Your task to perform on an android device: Do I have any events this weekend? Image 0: 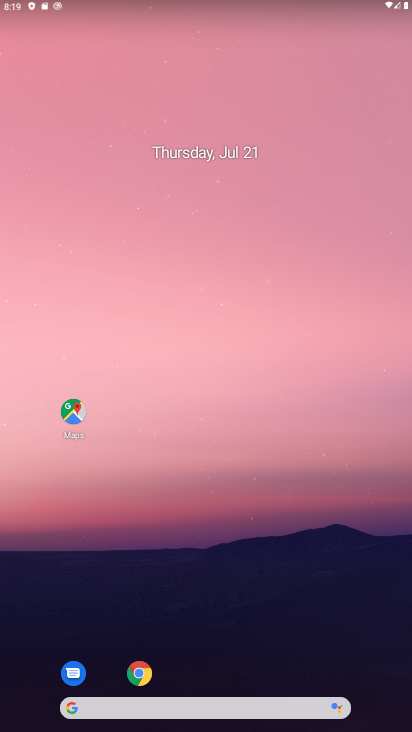
Step 0: drag from (190, 708) to (190, 144)
Your task to perform on an android device: Do I have any events this weekend? Image 1: 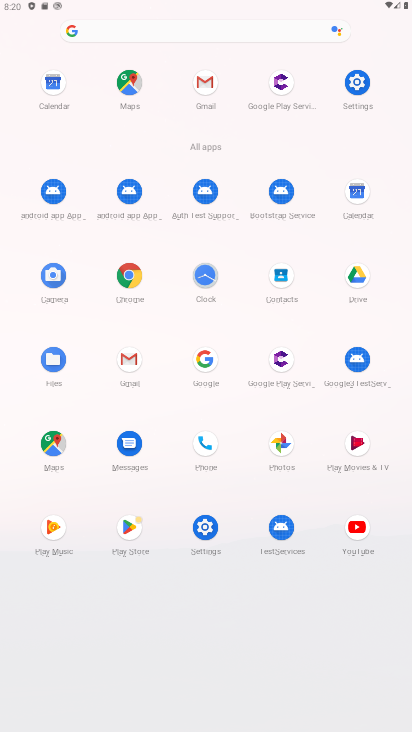
Step 1: click (361, 197)
Your task to perform on an android device: Do I have any events this weekend? Image 2: 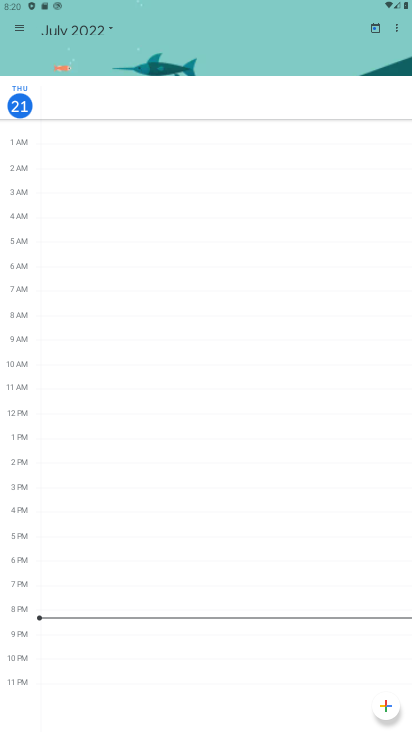
Step 2: click (112, 29)
Your task to perform on an android device: Do I have any events this weekend? Image 3: 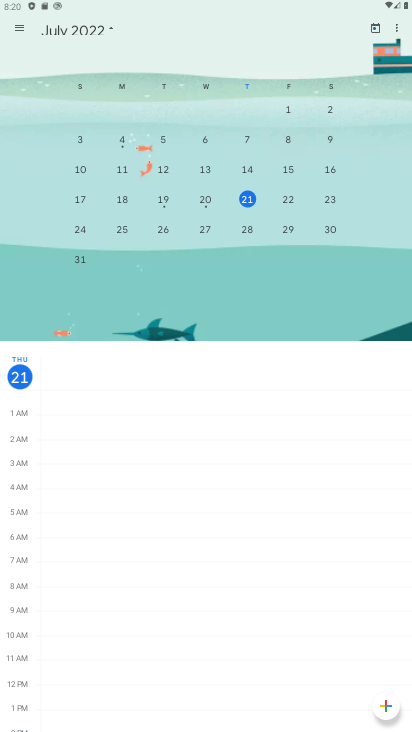
Step 3: click (16, 28)
Your task to perform on an android device: Do I have any events this weekend? Image 4: 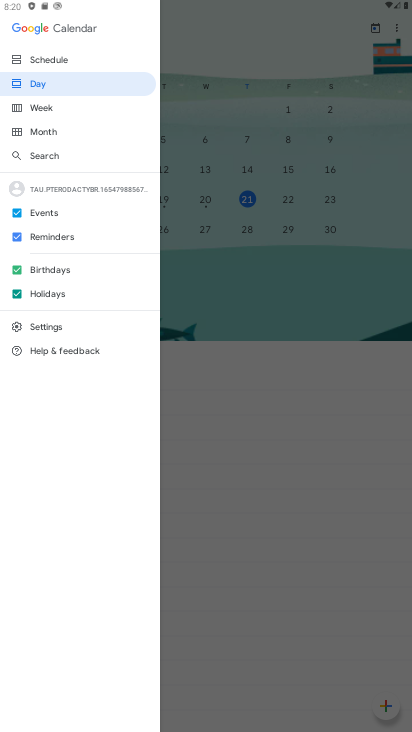
Step 4: click (15, 291)
Your task to perform on an android device: Do I have any events this weekend? Image 5: 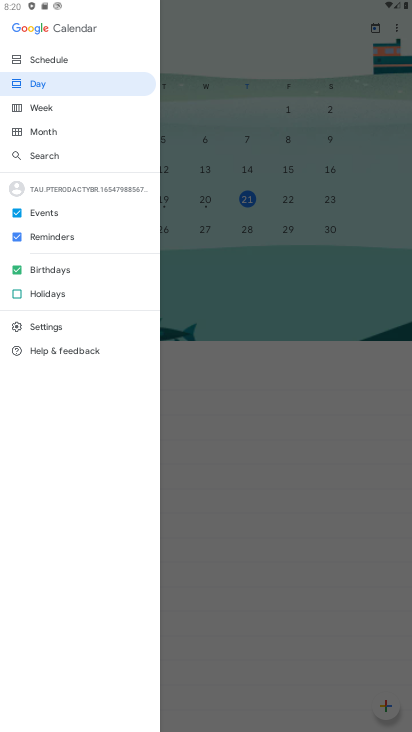
Step 5: click (17, 267)
Your task to perform on an android device: Do I have any events this weekend? Image 6: 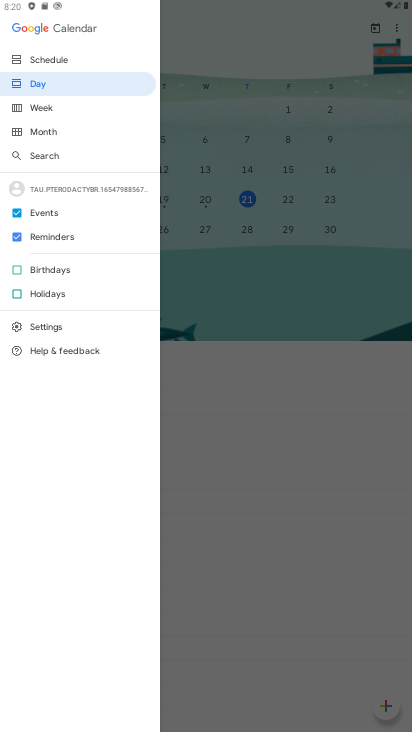
Step 6: click (18, 231)
Your task to perform on an android device: Do I have any events this weekend? Image 7: 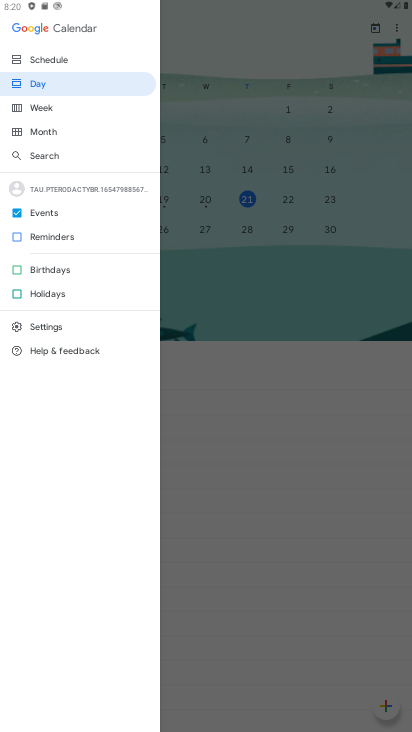
Step 7: click (297, 199)
Your task to perform on an android device: Do I have any events this weekend? Image 8: 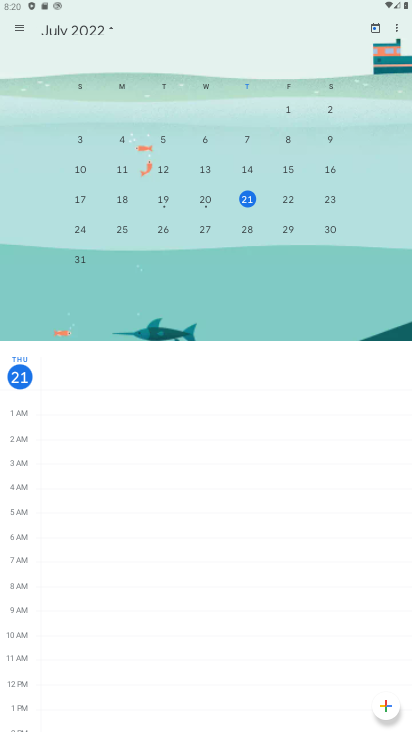
Step 8: click (329, 199)
Your task to perform on an android device: Do I have any events this weekend? Image 9: 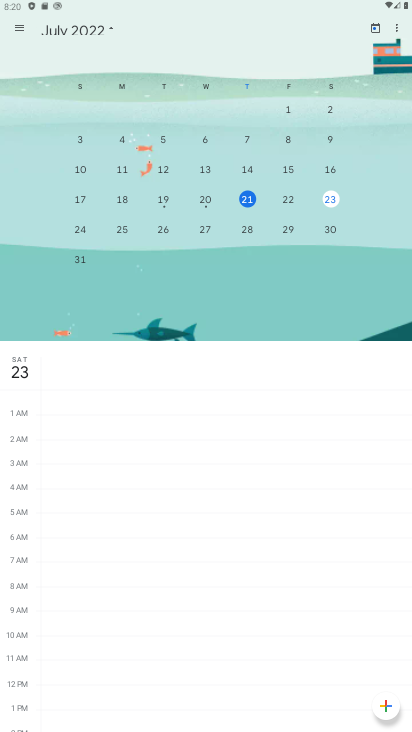
Step 9: click (329, 199)
Your task to perform on an android device: Do I have any events this weekend? Image 10: 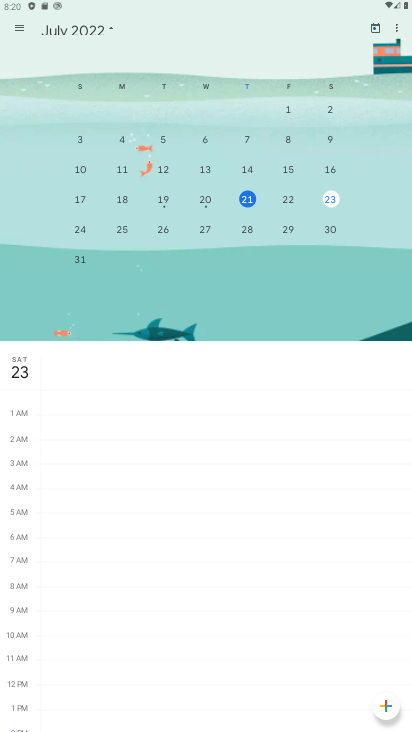
Step 10: click (16, 365)
Your task to perform on an android device: Do I have any events this weekend? Image 11: 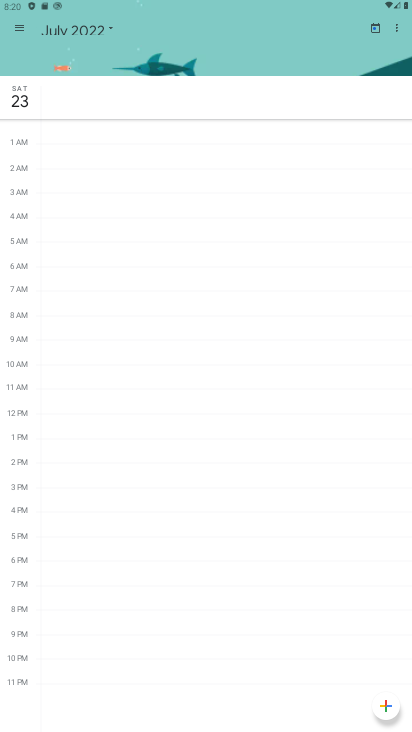
Step 11: task complete